Your task to perform on an android device: How do I get to the nearest electronics store? Image 0: 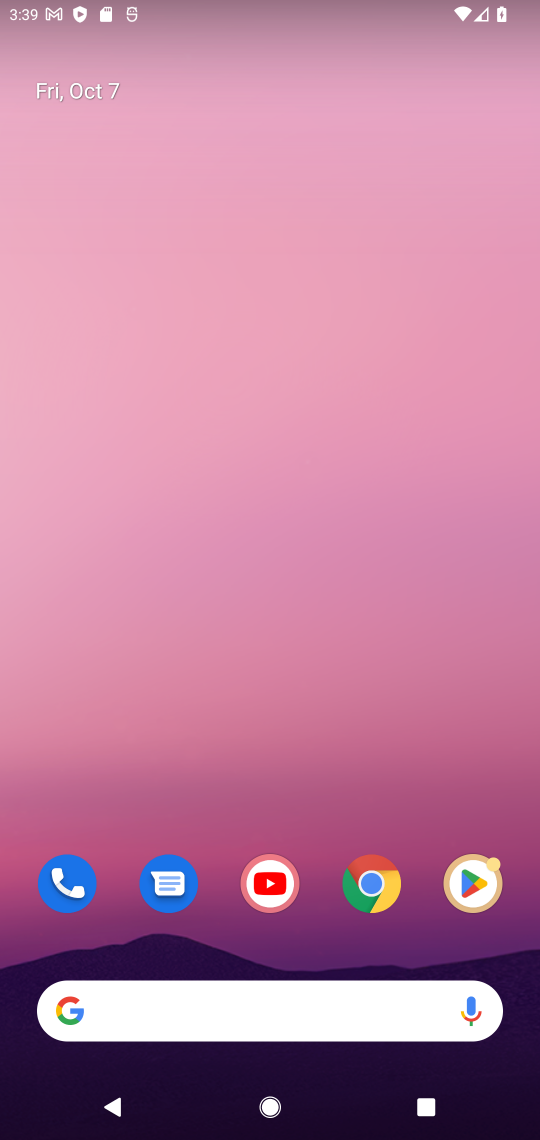
Step 0: click (371, 887)
Your task to perform on an android device: How do I get to the nearest electronics store? Image 1: 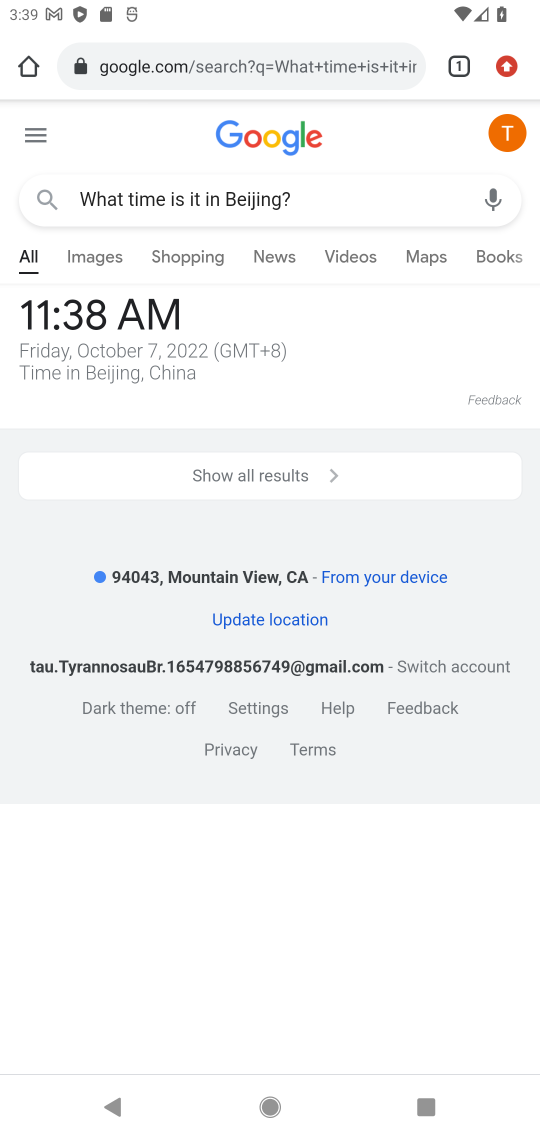
Step 1: click (305, 206)
Your task to perform on an android device: How do I get to the nearest electronics store? Image 2: 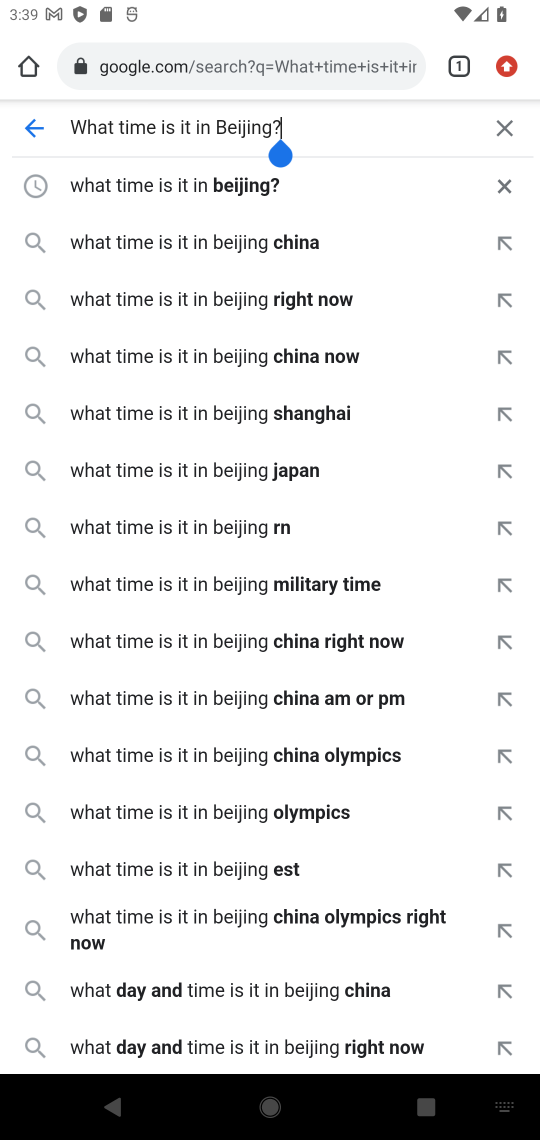
Step 2: click (507, 124)
Your task to perform on an android device: How do I get to the nearest electronics store? Image 3: 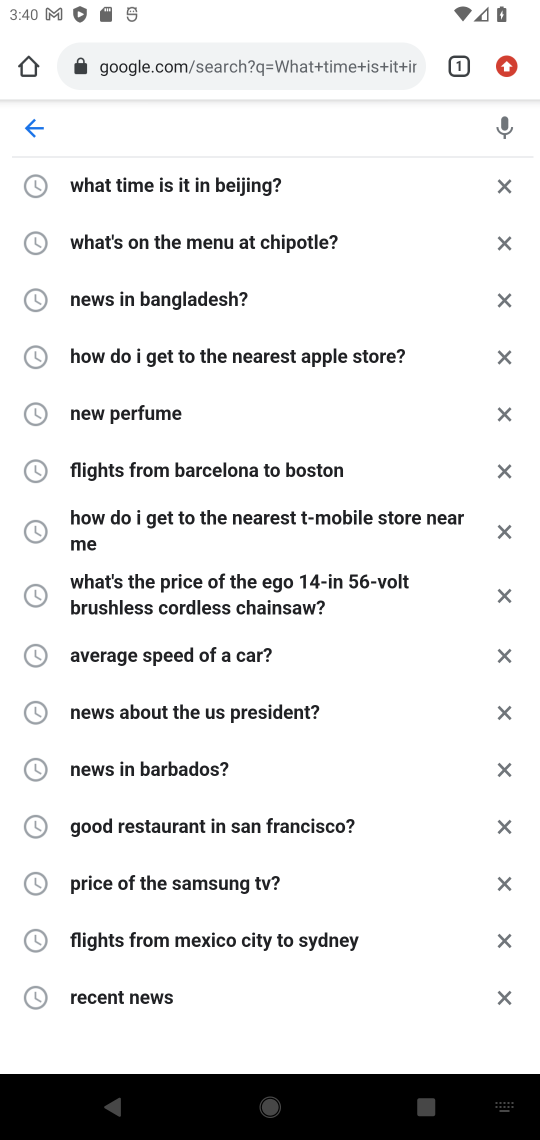
Step 3: drag from (298, 1089) to (510, 926)
Your task to perform on an android device: How do I get to the nearest electronics store? Image 4: 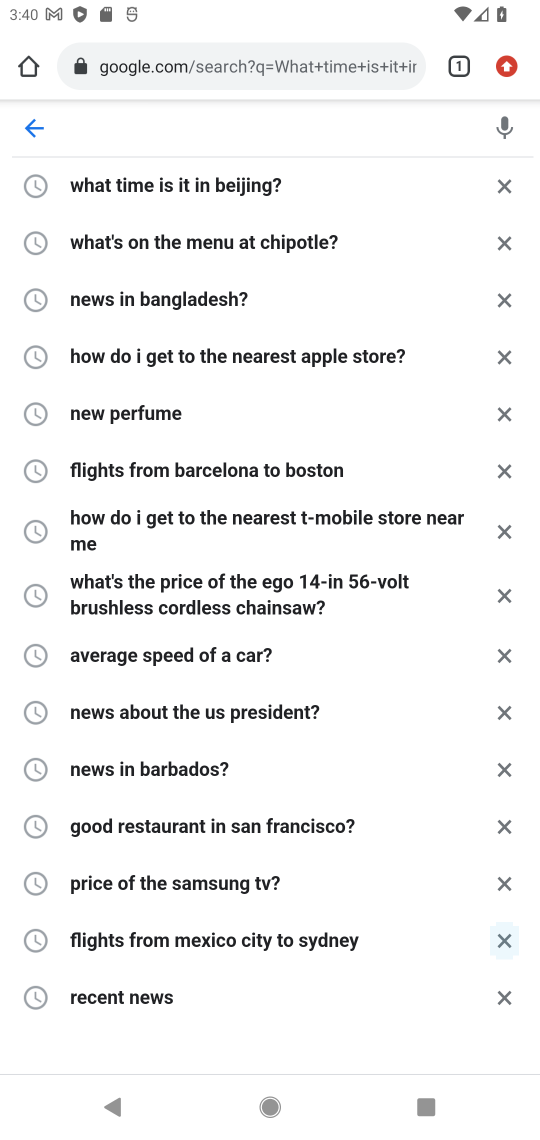
Step 4: type "How do I get to the nearest electronics store?"
Your task to perform on an android device: How do I get to the nearest electronics store? Image 5: 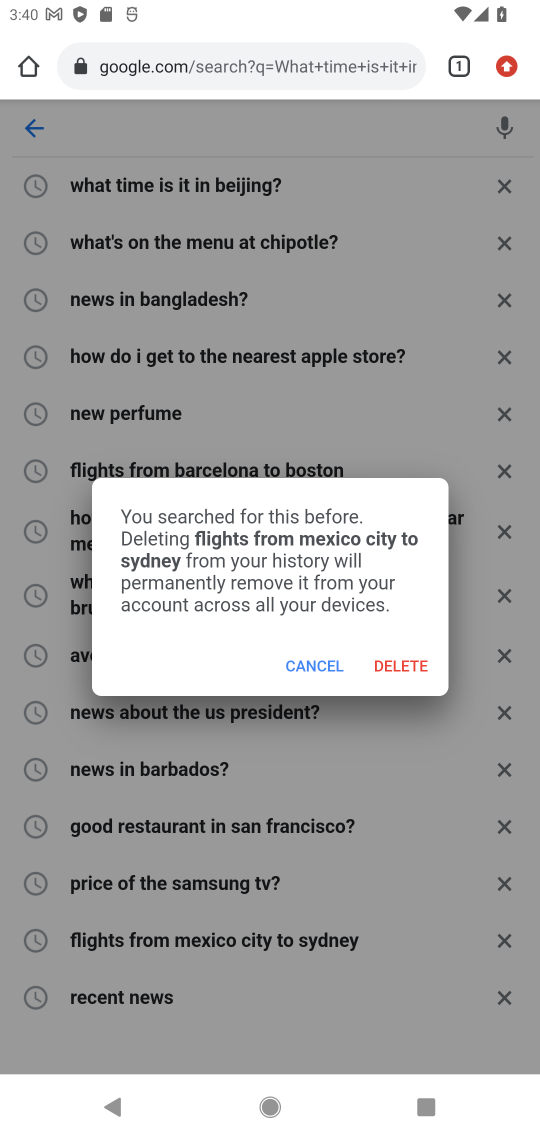
Step 5: click (400, 672)
Your task to perform on an android device: How do I get to the nearest electronics store? Image 6: 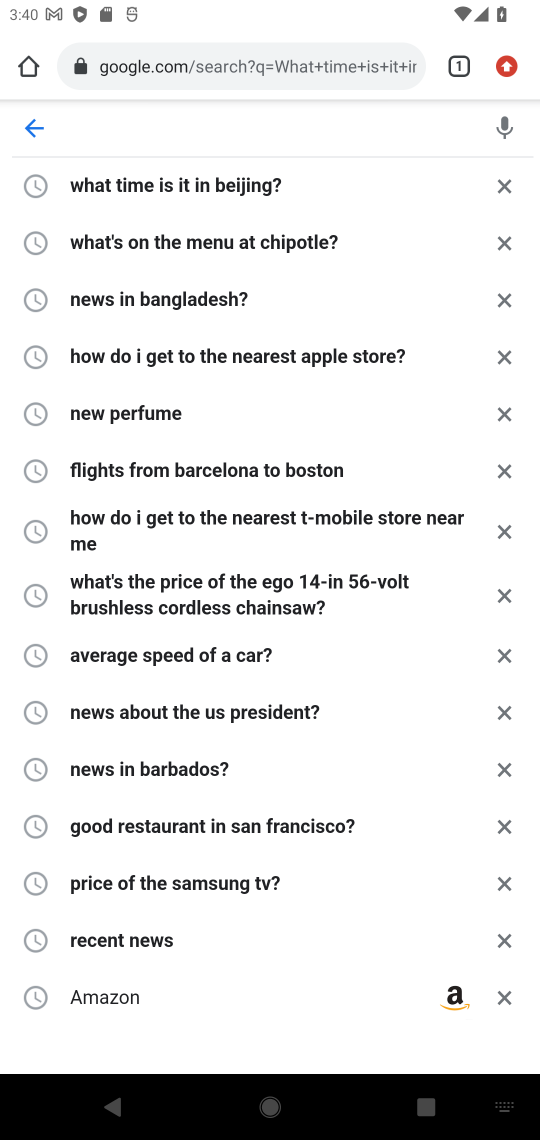
Step 6: type "How do I get to the nearest electronics store?"
Your task to perform on an android device: How do I get to the nearest electronics store? Image 7: 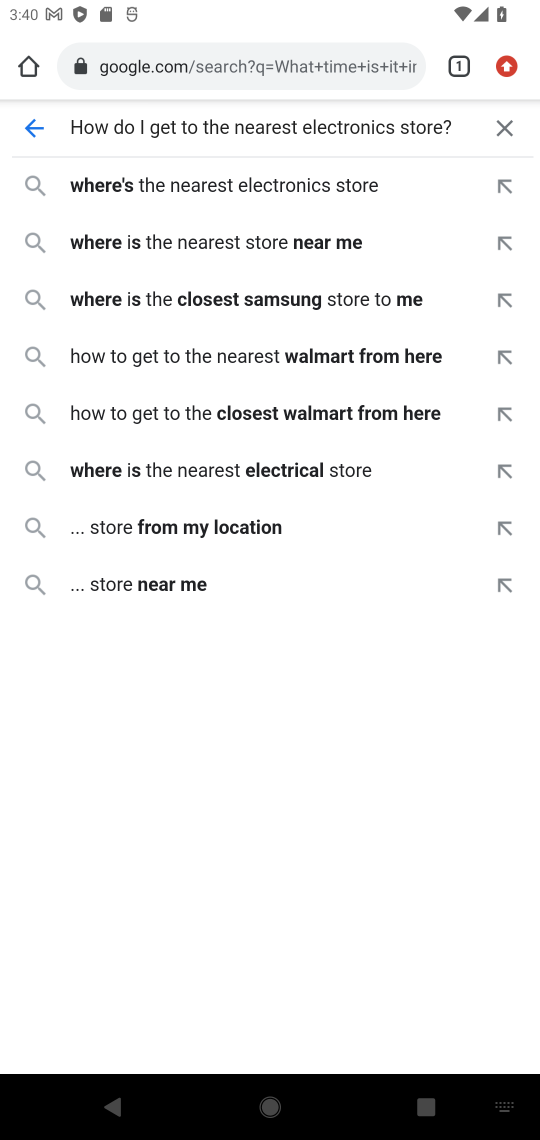
Step 7: press enter
Your task to perform on an android device: How do I get to the nearest electronics store? Image 8: 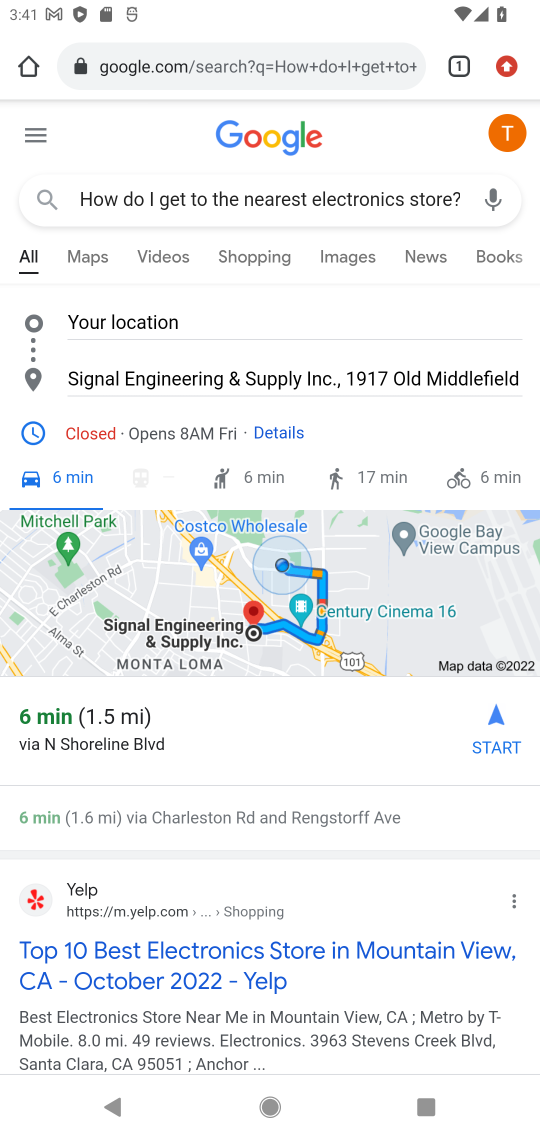
Step 8: task complete